Your task to perform on an android device: see tabs open on other devices in the chrome app Image 0: 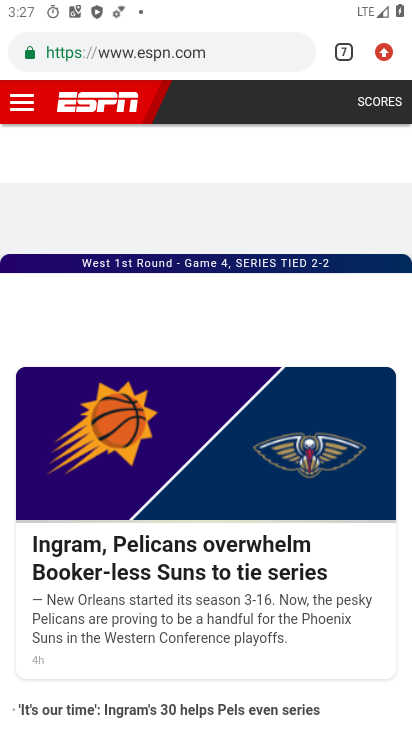
Step 0: drag from (382, 52) to (273, 309)
Your task to perform on an android device: see tabs open on other devices in the chrome app Image 1: 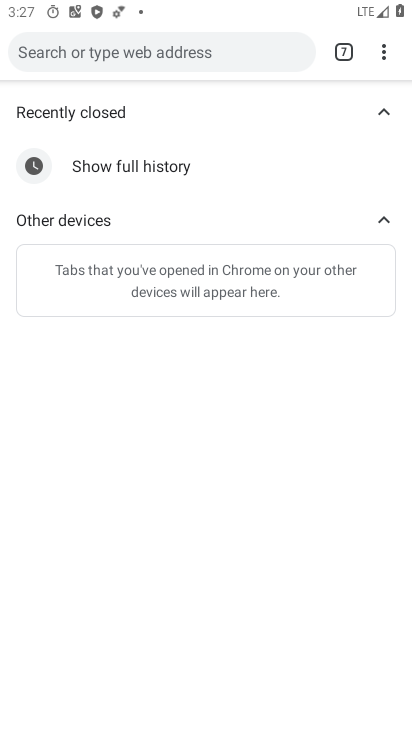
Step 1: task complete